Your task to perform on an android device: Open the calendar app, open the side menu, and click the "Day" option Image 0: 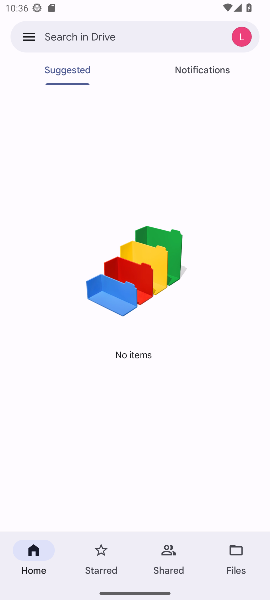
Step 0: press home button
Your task to perform on an android device: Open the calendar app, open the side menu, and click the "Day" option Image 1: 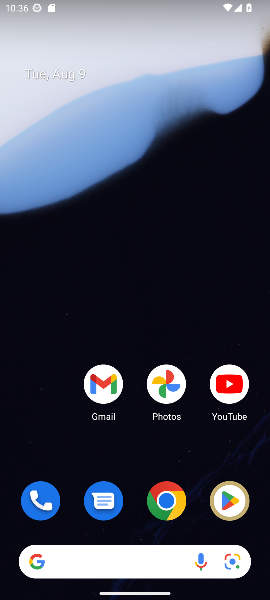
Step 1: drag from (123, 500) to (121, 144)
Your task to perform on an android device: Open the calendar app, open the side menu, and click the "Day" option Image 2: 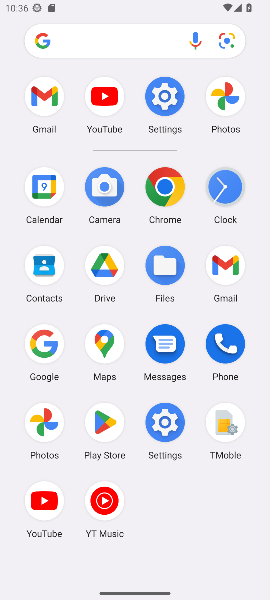
Step 2: click (40, 199)
Your task to perform on an android device: Open the calendar app, open the side menu, and click the "Day" option Image 3: 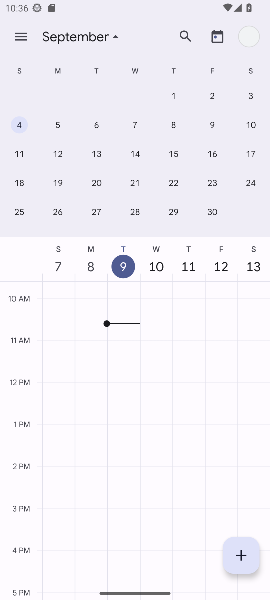
Step 3: click (20, 36)
Your task to perform on an android device: Open the calendar app, open the side menu, and click the "Day" option Image 4: 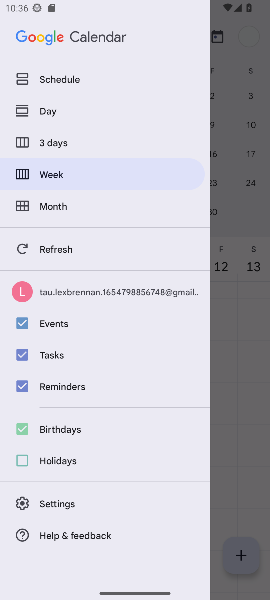
Step 4: click (51, 113)
Your task to perform on an android device: Open the calendar app, open the side menu, and click the "Day" option Image 5: 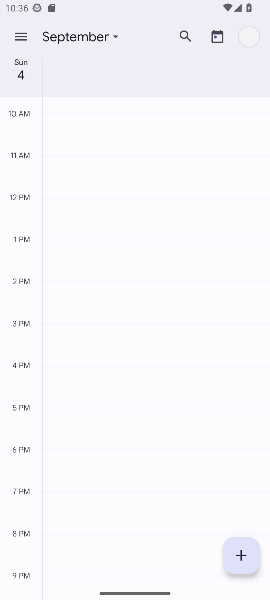
Step 5: task complete